Your task to perform on an android device: open device folders in google photos Image 0: 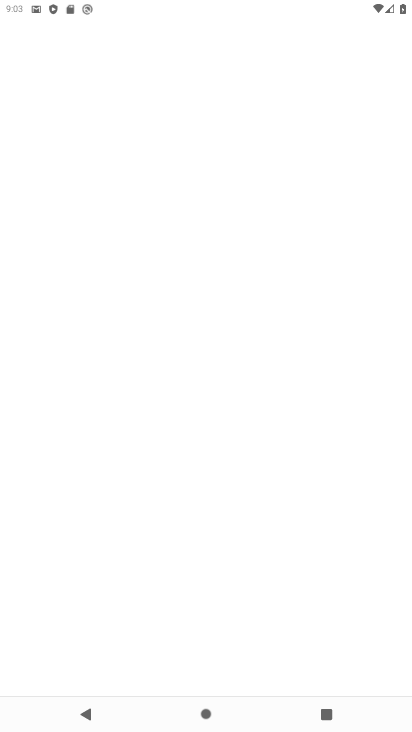
Step 0: press home button
Your task to perform on an android device: open device folders in google photos Image 1: 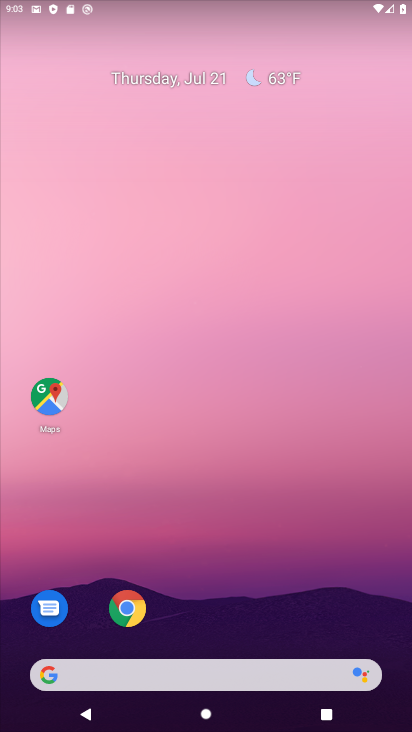
Step 1: drag from (241, 625) to (271, 277)
Your task to perform on an android device: open device folders in google photos Image 2: 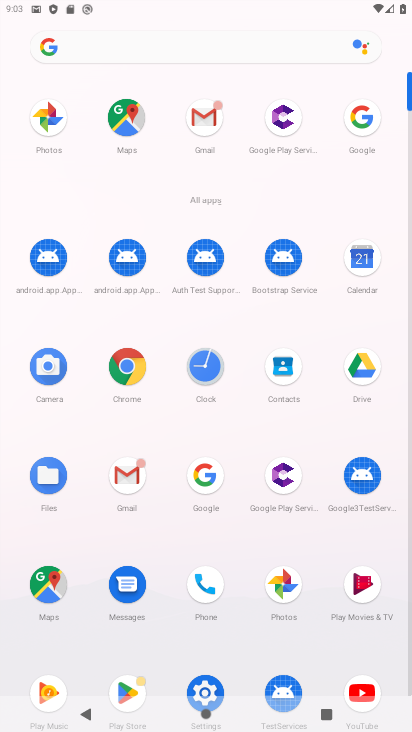
Step 2: click (282, 602)
Your task to perform on an android device: open device folders in google photos Image 3: 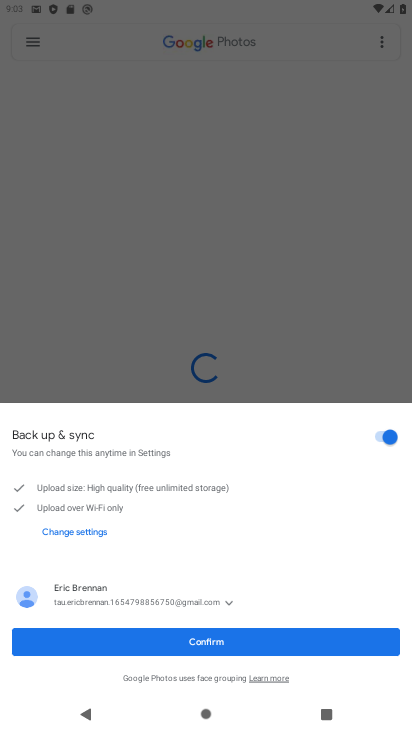
Step 3: click (271, 655)
Your task to perform on an android device: open device folders in google photos Image 4: 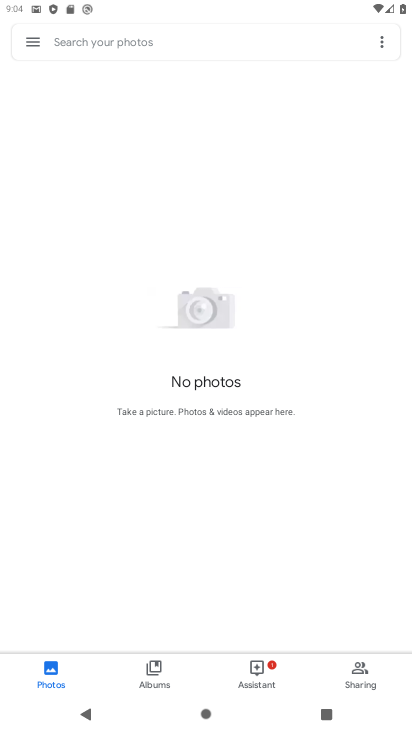
Step 4: click (34, 42)
Your task to perform on an android device: open device folders in google photos Image 5: 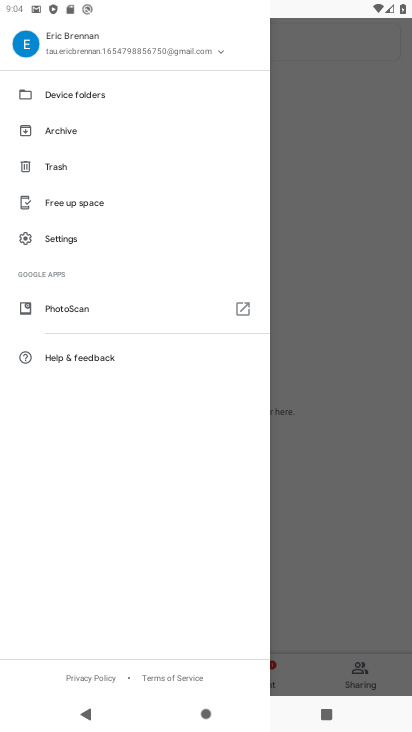
Step 5: click (88, 93)
Your task to perform on an android device: open device folders in google photos Image 6: 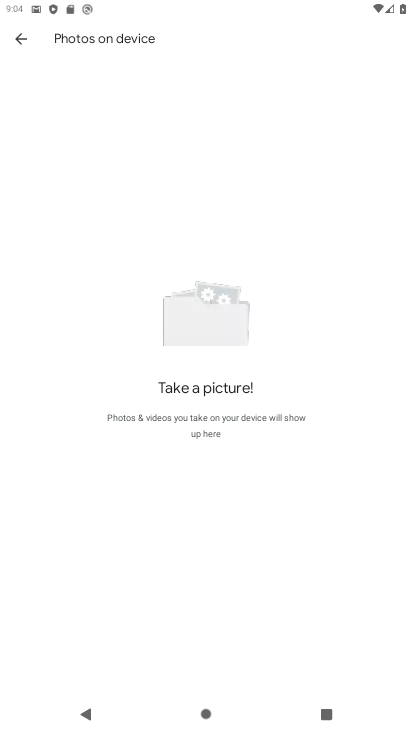
Step 6: task complete